Your task to perform on an android device: turn smart compose on in the gmail app Image 0: 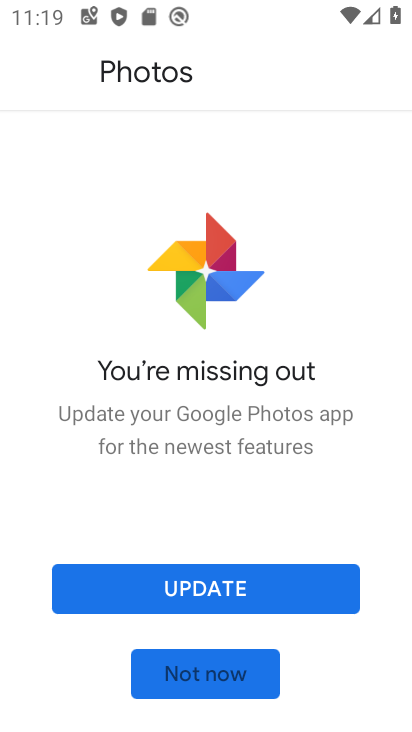
Step 0: press home button
Your task to perform on an android device: turn smart compose on in the gmail app Image 1: 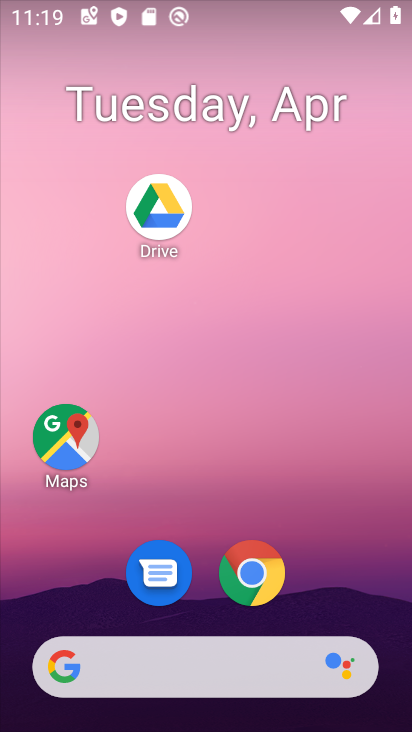
Step 1: drag from (334, 588) to (320, 62)
Your task to perform on an android device: turn smart compose on in the gmail app Image 2: 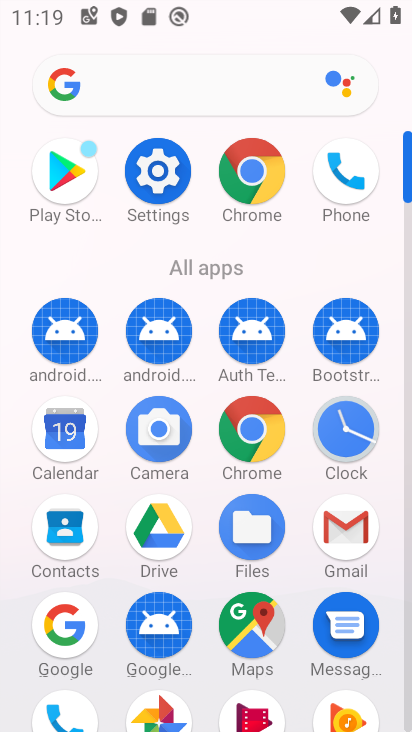
Step 2: click (353, 532)
Your task to perform on an android device: turn smart compose on in the gmail app Image 3: 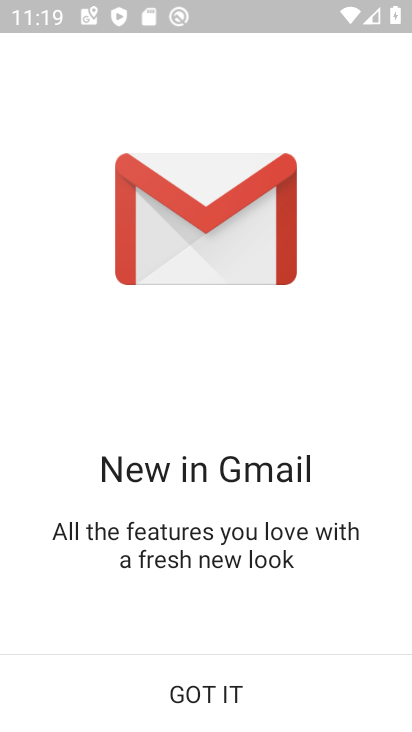
Step 3: click (224, 710)
Your task to perform on an android device: turn smart compose on in the gmail app Image 4: 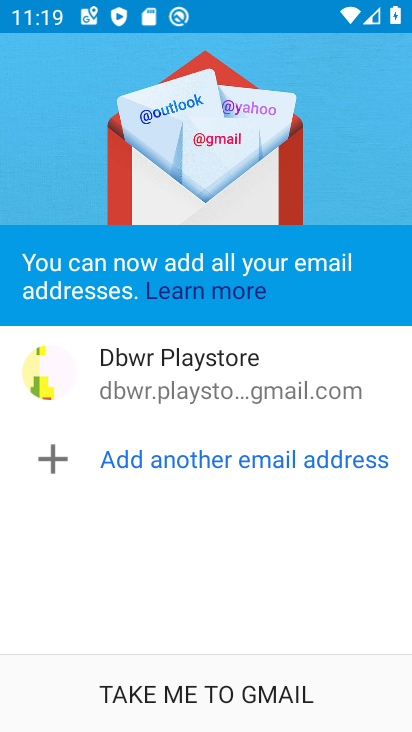
Step 4: click (241, 695)
Your task to perform on an android device: turn smart compose on in the gmail app Image 5: 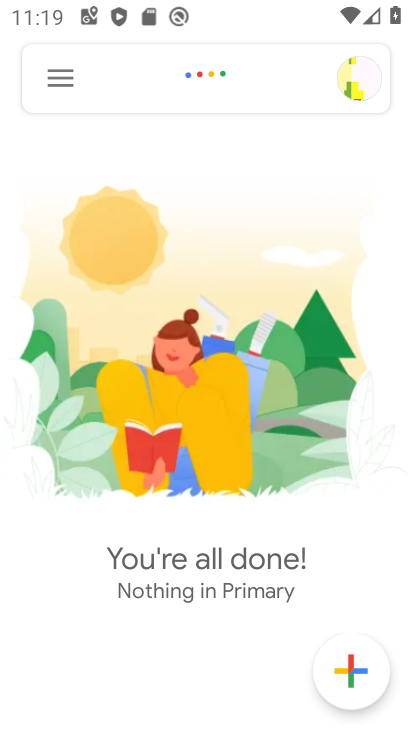
Step 5: click (63, 79)
Your task to perform on an android device: turn smart compose on in the gmail app Image 6: 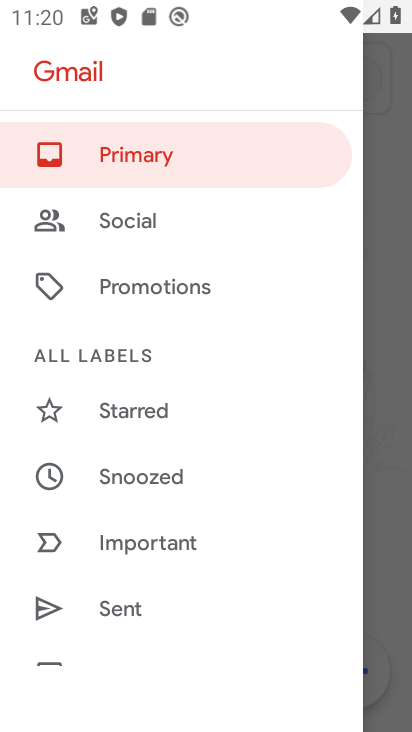
Step 6: drag from (290, 574) to (306, 431)
Your task to perform on an android device: turn smart compose on in the gmail app Image 7: 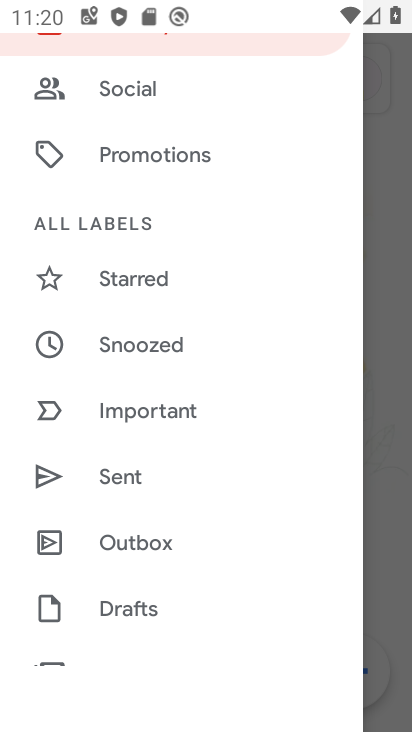
Step 7: drag from (302, 550) to (304, 393)
Your task to perform on an android device: turn smart compose on in the gmail app Image 8: 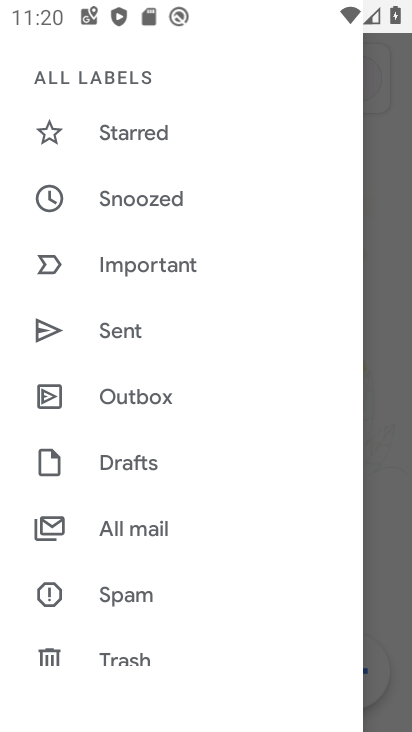
Step 8: drag from (290, 576) to (290, 415)
Your task to perform on an android device: turn smart compose on in the gmail app Image 9: 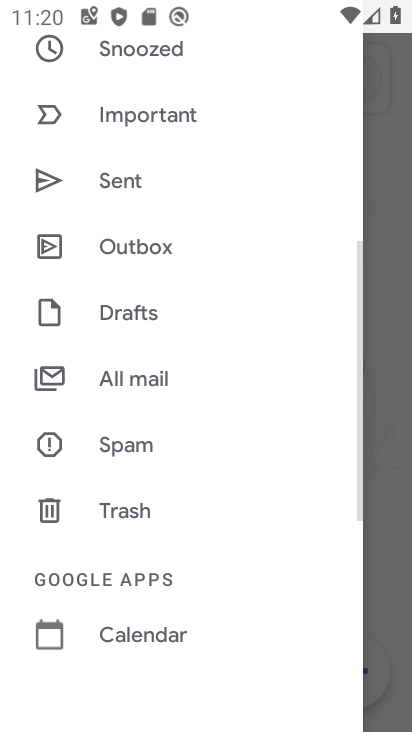
Step 9: drag from (285, 598) to (295, 422)
Your task to perform on an android device: turn smart compose on in the gmail app Image 10: 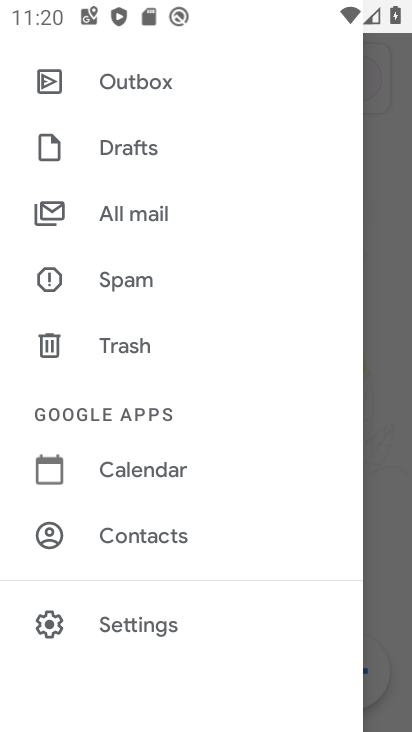
Step 10: click (181, 626)
Your task to perform on an android device: turn smart compose on in the gmail app Image 11: 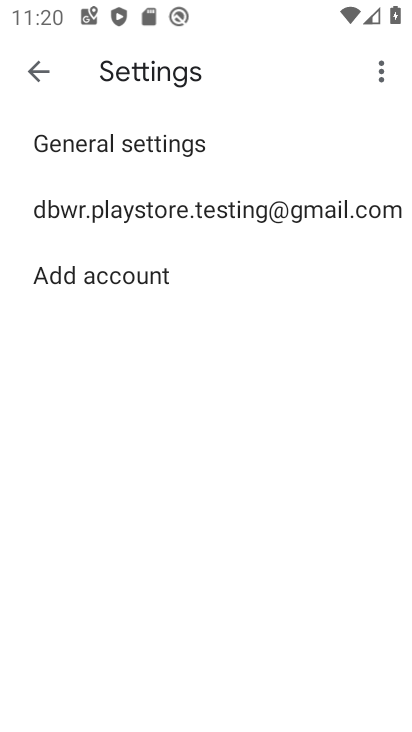
Step 11: click (242, 211)
Your task to perform on an android device: turn smart compose on in the gmail app Image 12: 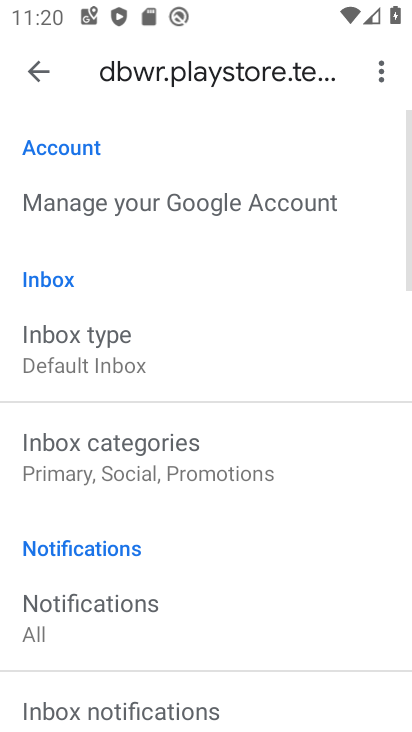
Step 12: task complete